Your task to perform on an android device: delete browsing data in the chrome app Image 0: 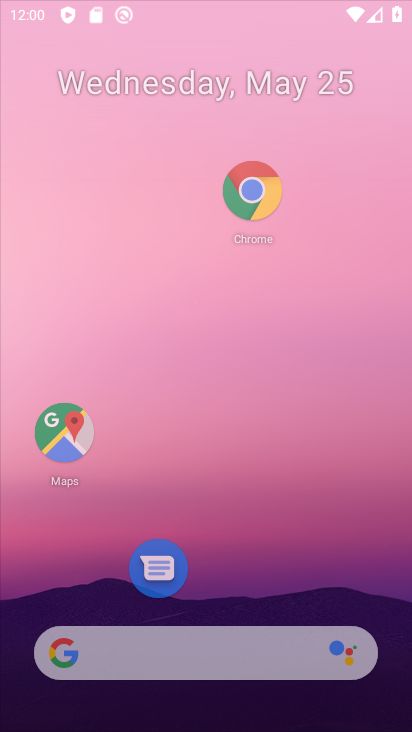
Step 0: press home button
Your task to perform on an android device: delete browsing data in the chrome app Image 1: 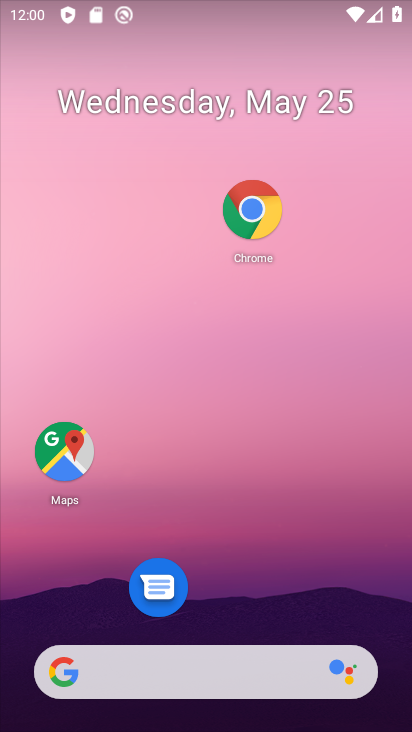
Step 1: click (252, 203)
Your task to perform on an android device: delete browsing data in the chrome app Image 2: 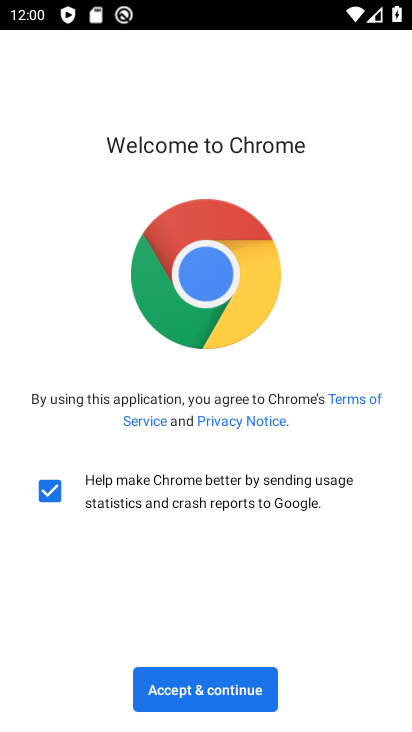
Step 2: click (200, 682)
Your task to perform on an android device: delete browsing data in the chrome app Image 3: 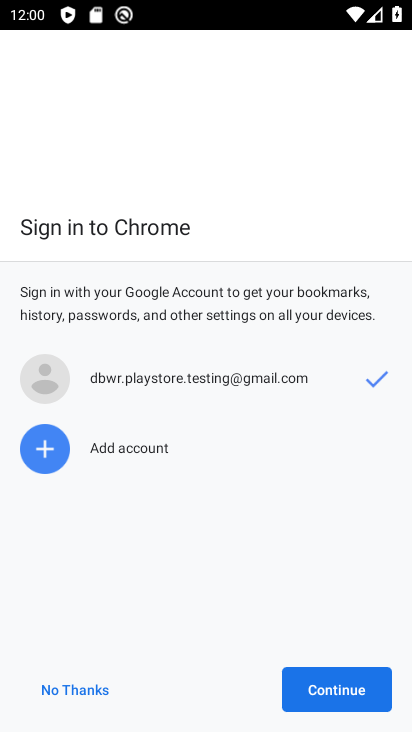
Step 3: click (333, 684)
Your task to perform on an android device: delete browsing data in the chrome app Image 4: 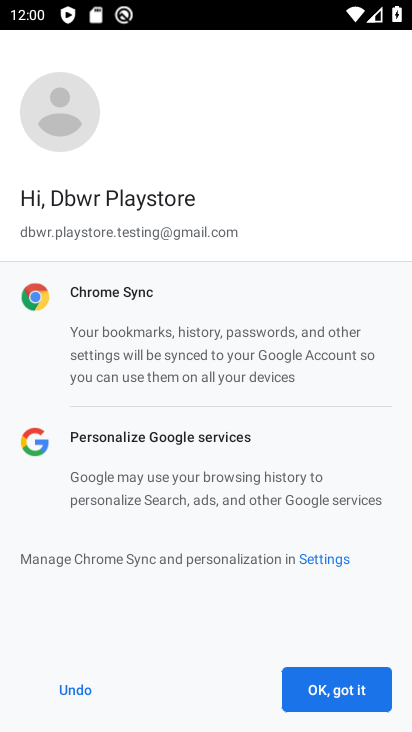
Step 4: click (320, 706)
Your task to perform on an android device: delete browsing data in the chrome app Image 5: 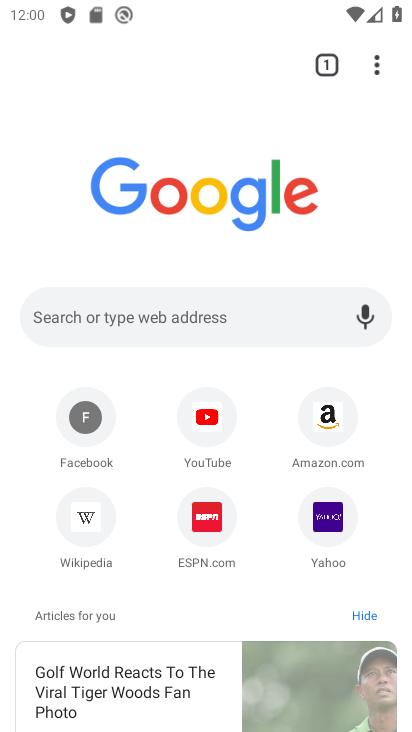
Step 5: click (377, 62)
Your task to perform on an android device: delete browsing data in the chrome app Image 6: 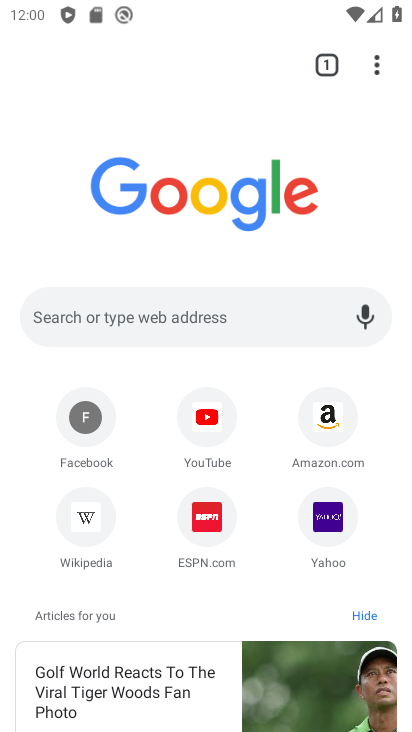
Step 6: click (371, 70)
Your task to perform on an android device: delete browsing data in the chrome app Image 7: 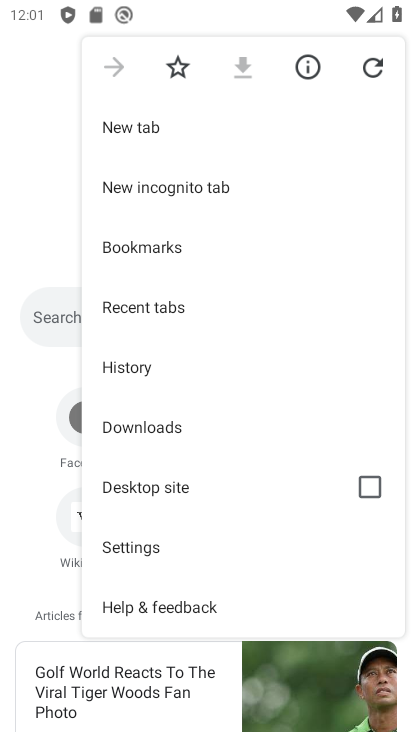
Step 7: click (165, 362)
Your task to perform on an android device: delete browsing data in the chrome app Image 8: 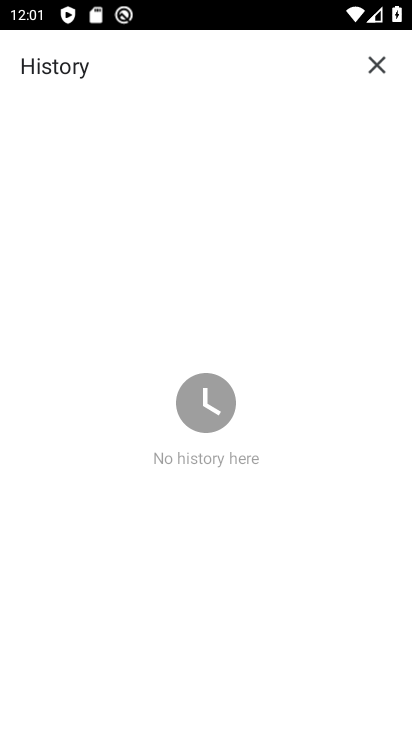
Step 8: task complete